Your task to perform on an android device: turn off priority inbox in the gmail app Image 0: 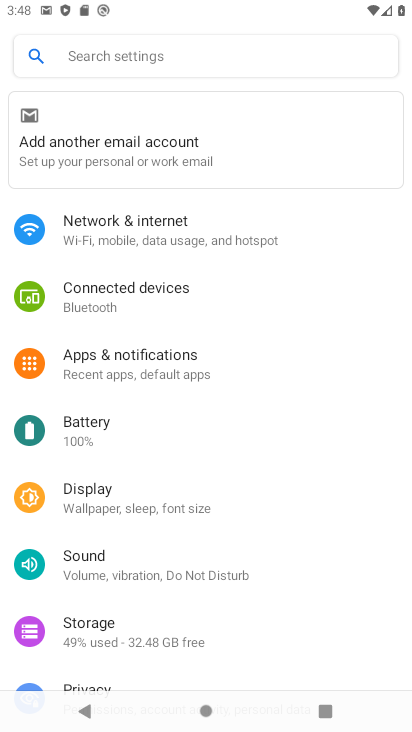
Step 0: press home button
Your task to perform on an android device: turn off priority inbox in the gmail app Image 1: 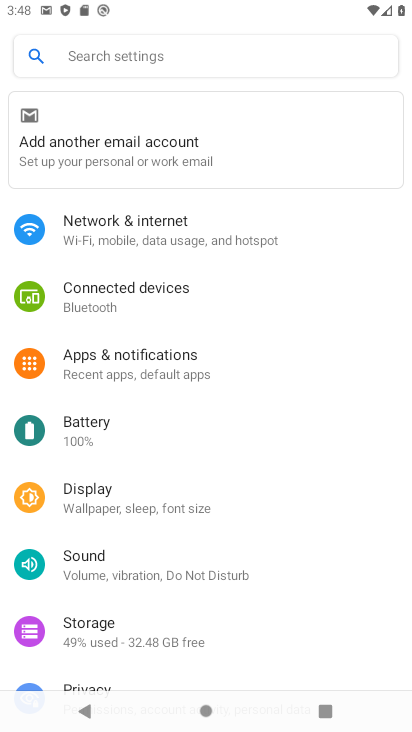
Step 1: press home button
Your task to perform on an android device: turn off priority inbox in the gmail app Image 2: 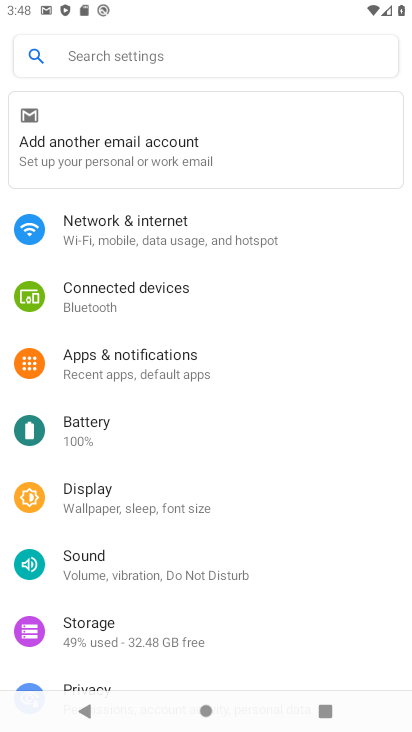
Step 2: drag from (343, 469) to (353, 120)
Your task to perform on an android device: turn off priority inbox in the gmail app Image 3: 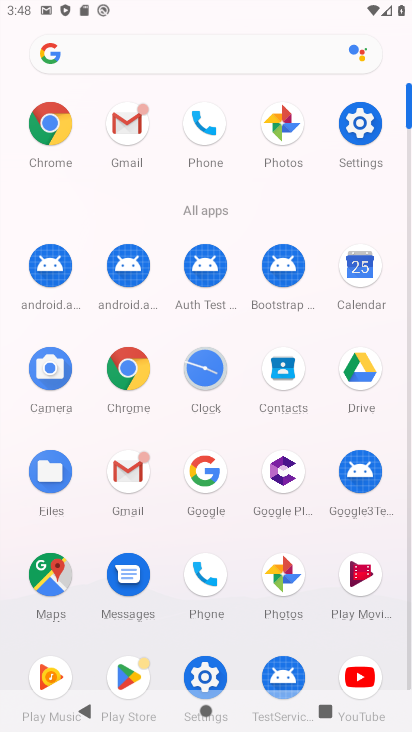
Step 3: click (126, 121)
Your task to perform on an android device: turn off priority inbox in the gmail app Image 4: 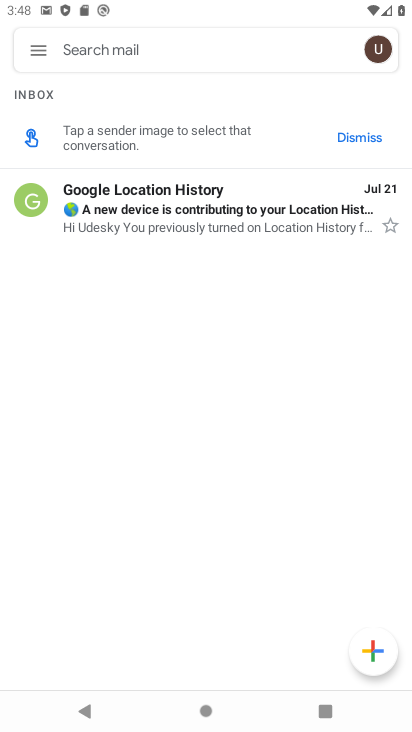
Step 4: click (31, 54)
Your task to perform on an android device: turn off priority inbox in the gmail app Image 5: 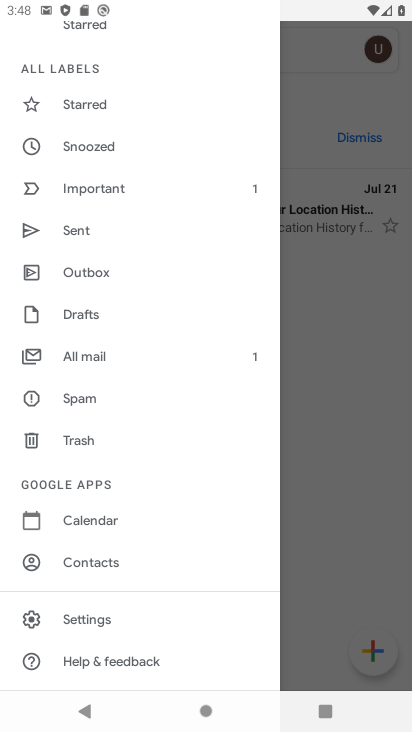
Step 5: click (26, 622)
Your task to perform on an android device: turn off priority inbox in the gmail app Image 6: 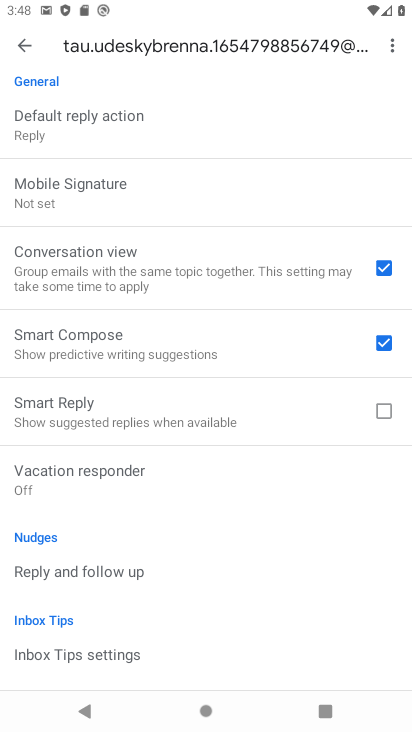
Step 6: drag from (137, 592) to (156, 727)
Your task to perform on an android device: turn off priority inbox in the gmail app Image 7: 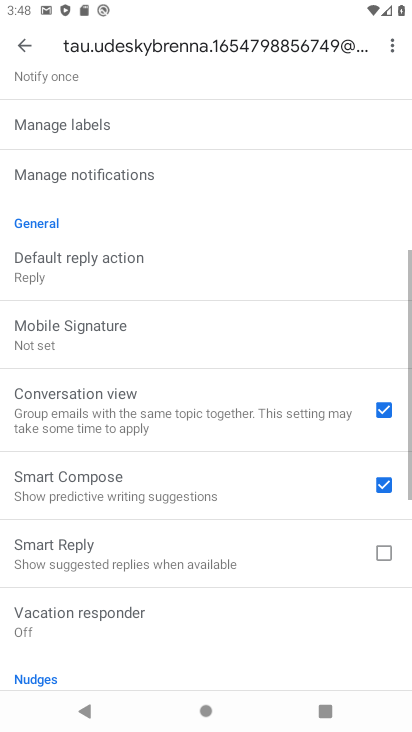
Step 7: drag from (189, 116) to (233, 621)
Your task to perform on an android device: turn off priority inbox in the gmail app Image 8: 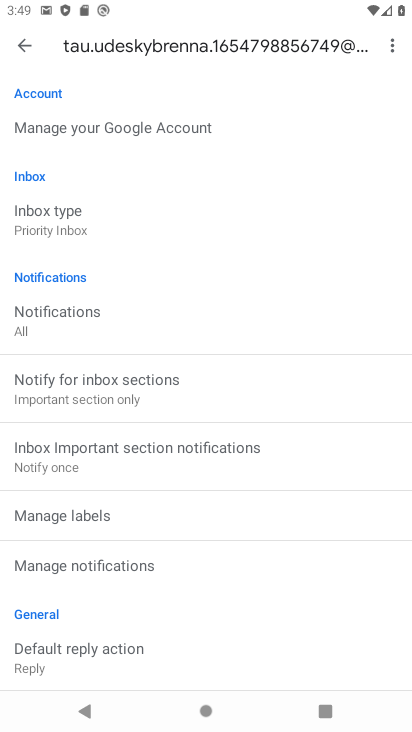
Step 8: click (77, 214)
Your task to perform on an android device: turn off priority inbox in the gmail app Image 9: 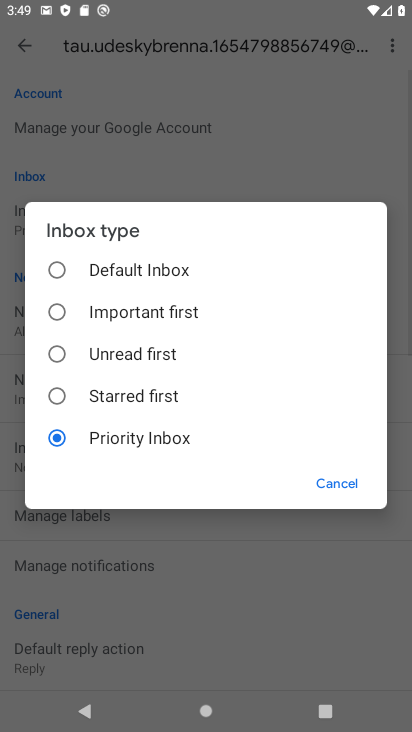
Step 9: click (113, 261)
Your task to perform on an android device: turn off priority inbox in the gmail app Image 10: 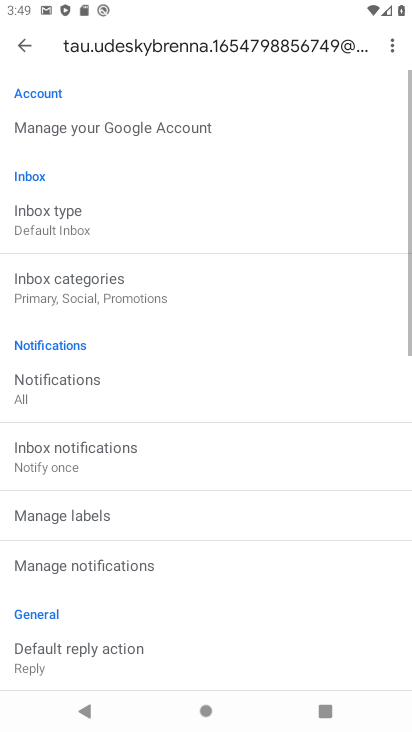
Step 10: task complete